Your task to perform on an android device: View the shopping cart on target.com. Image 0: 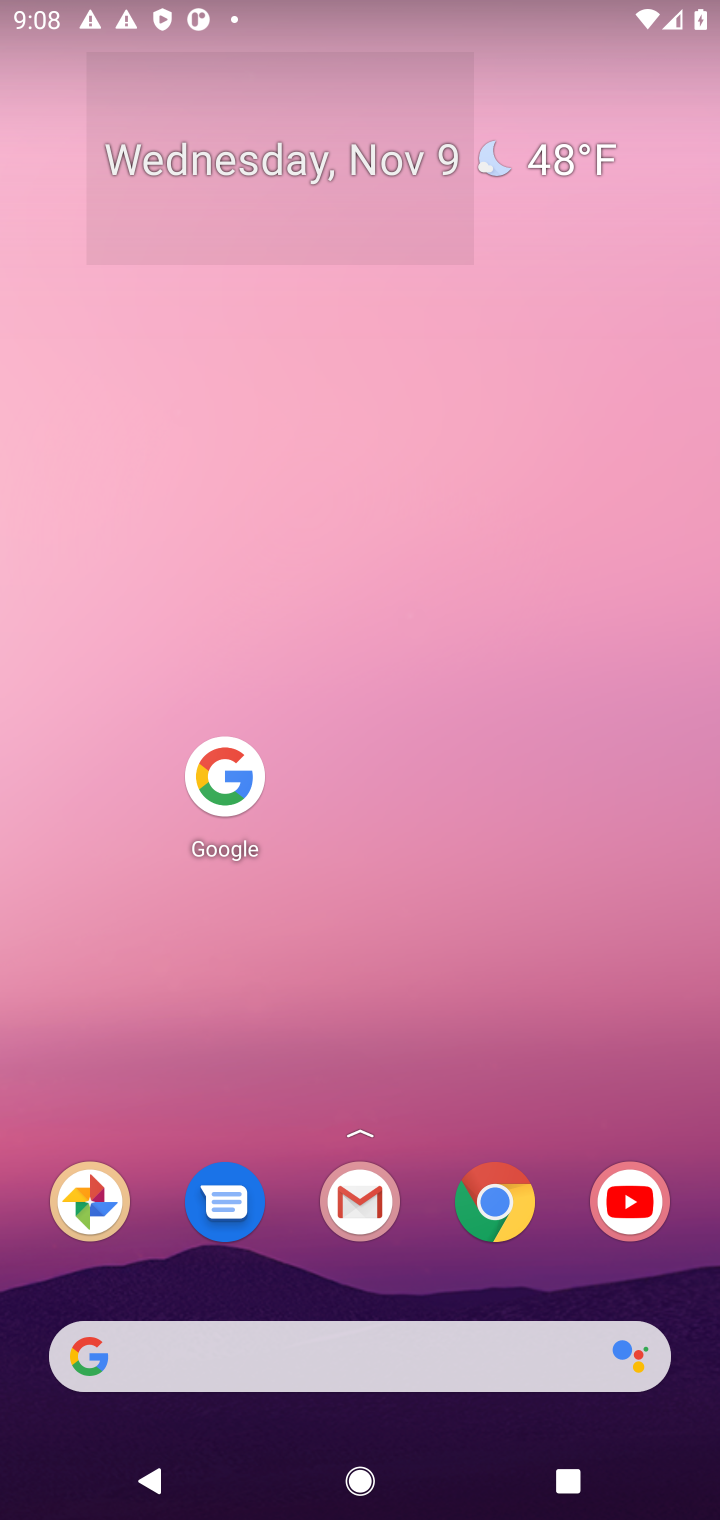
Step 0: press home button
Your task to perform on an android device: View the shopping cart on target.com. Image 1: 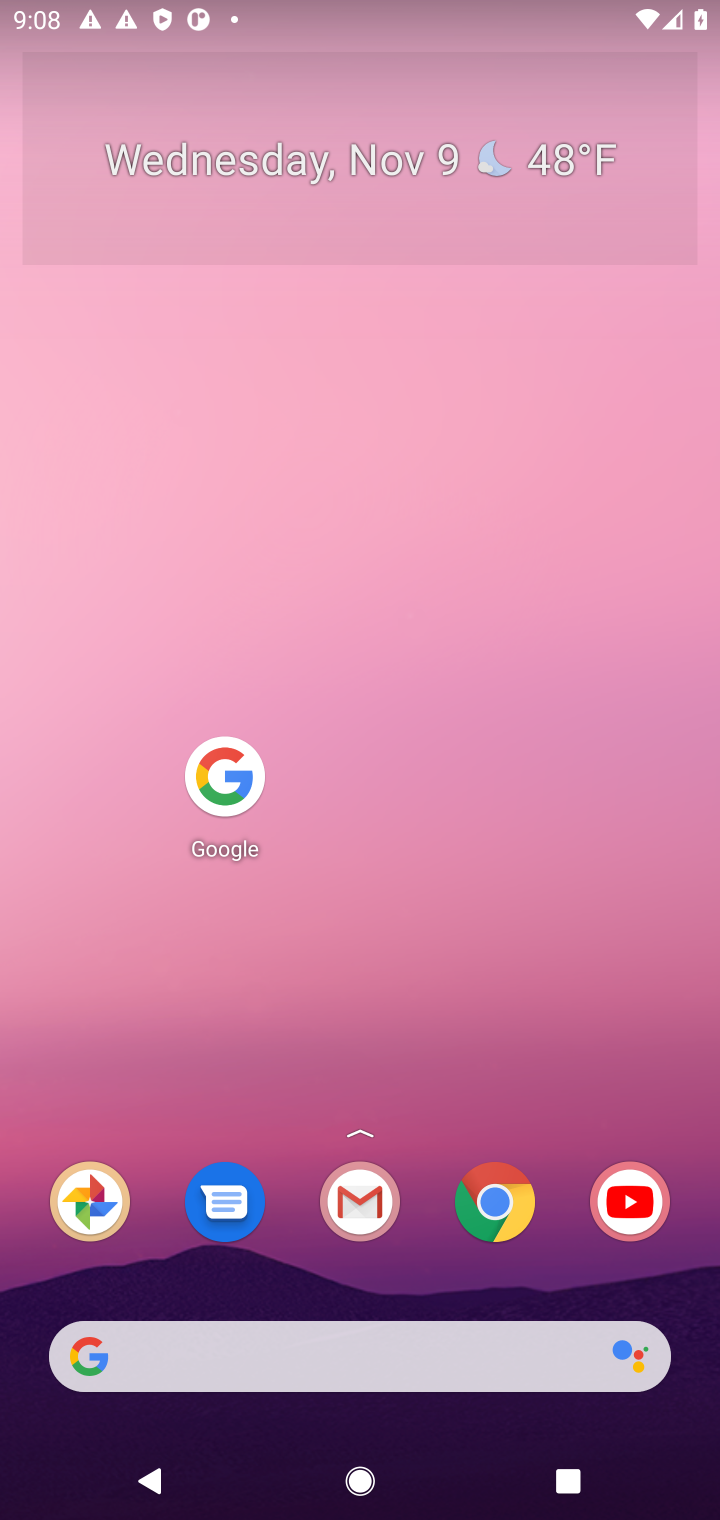
Step 1: click (219, 760)
Your task to perform on an android device: View the shopping cart on target.com. Image 2: 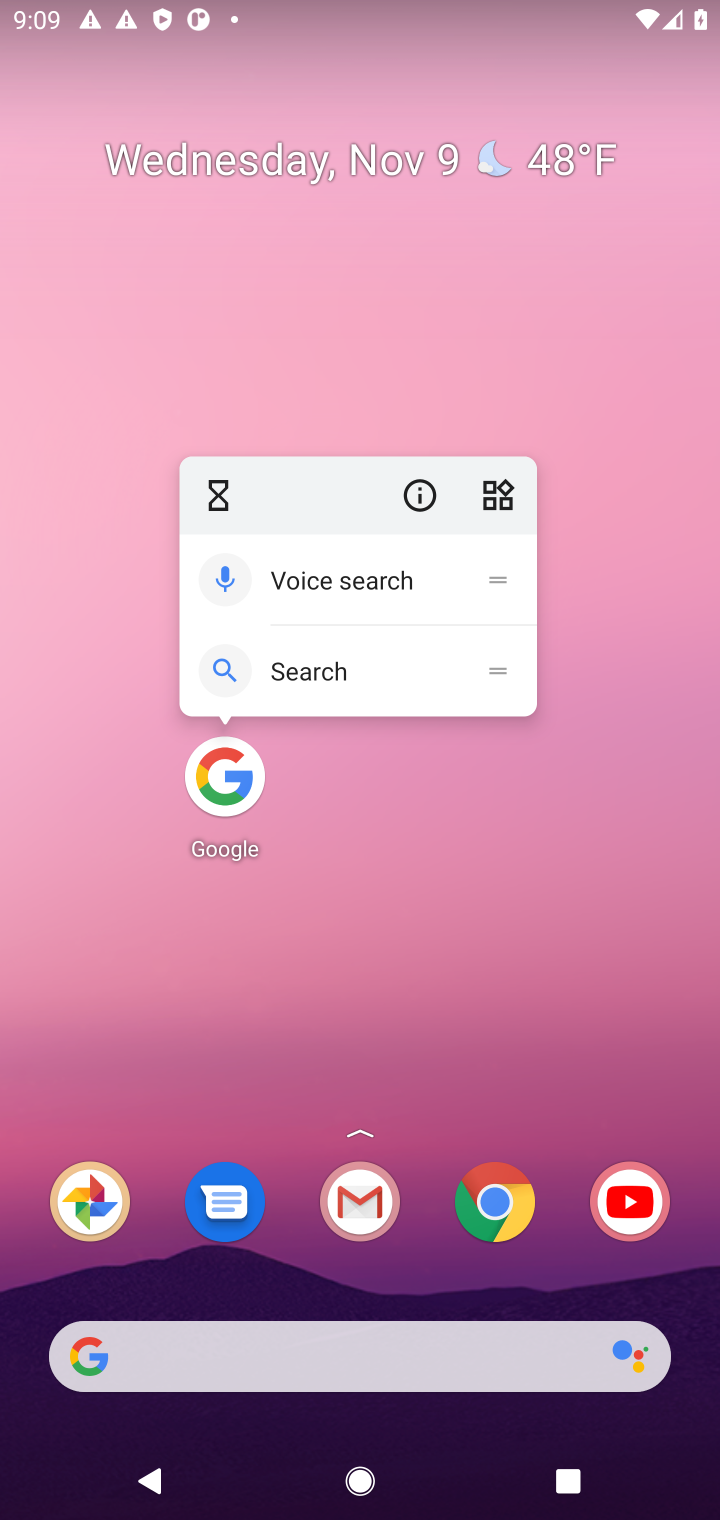
Step 2: click (226, 769)
Your task to perform on an android device: View the shopping cart on target.com. Image 3: 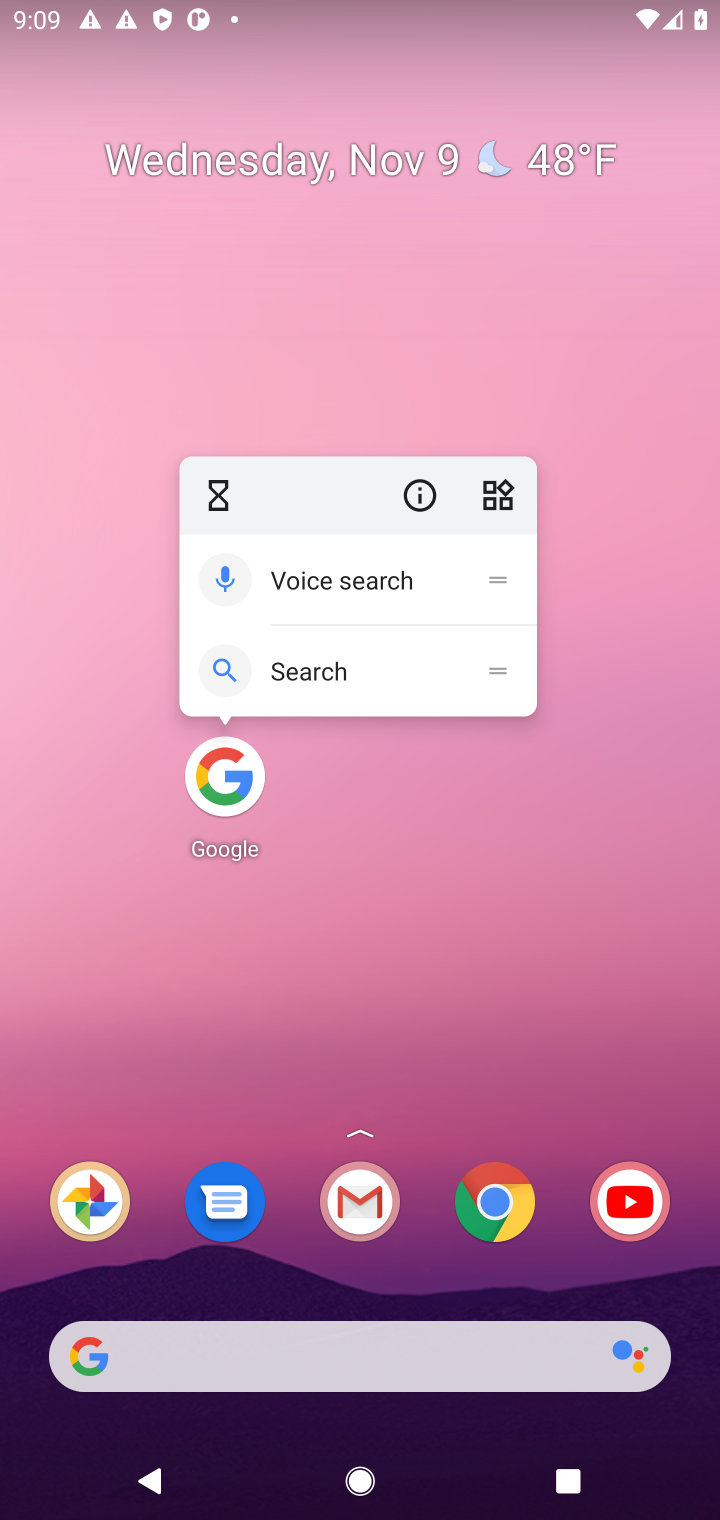
Step 3: click (226, 772)
Your task to perform on an android device: View the shopping cart on target.com. Image 4: 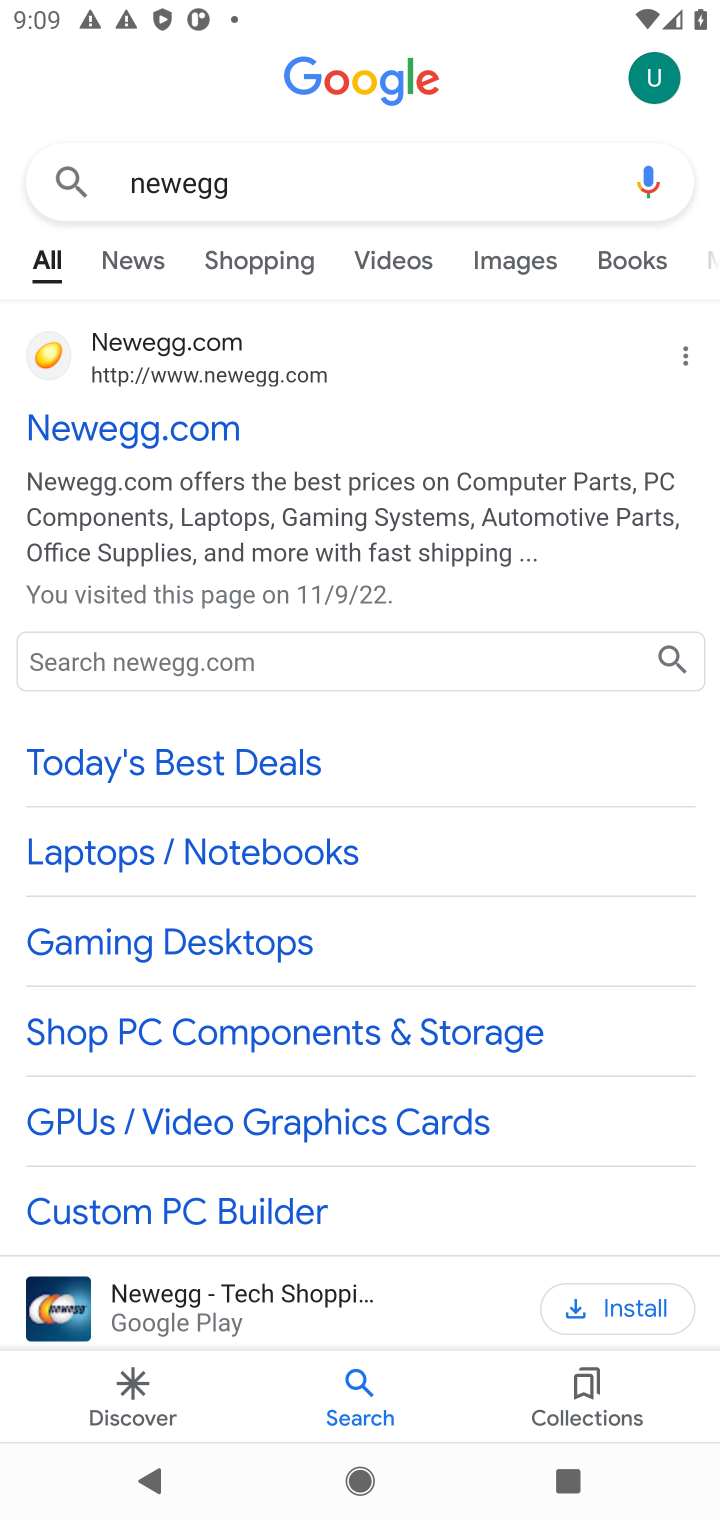
Step 4: click (292, 174)
Your task to perform on an android device: View the shopping cart on target.com. Image 5: 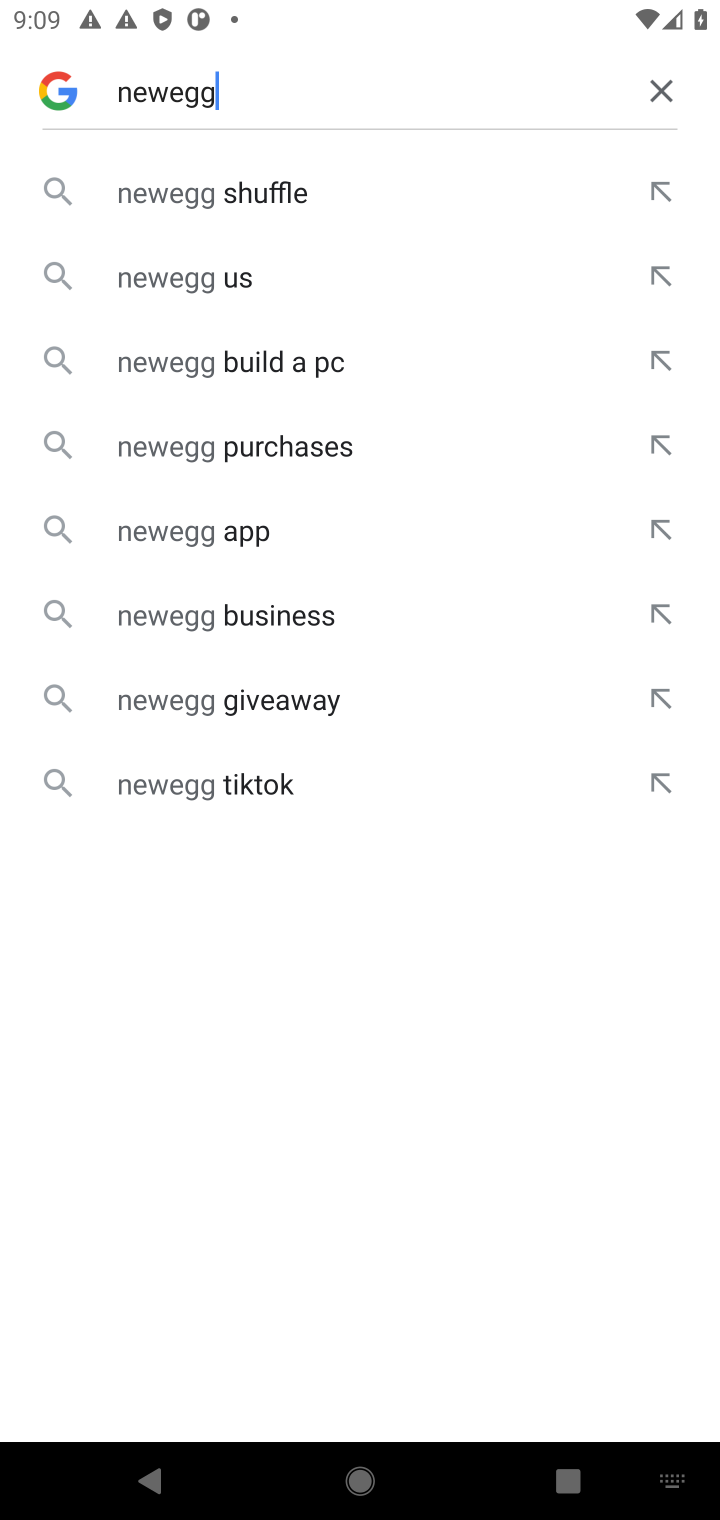
Step 5: click (661, 80)
Your task to perform on an android device: View the shopping cart on target.com. Image 6: 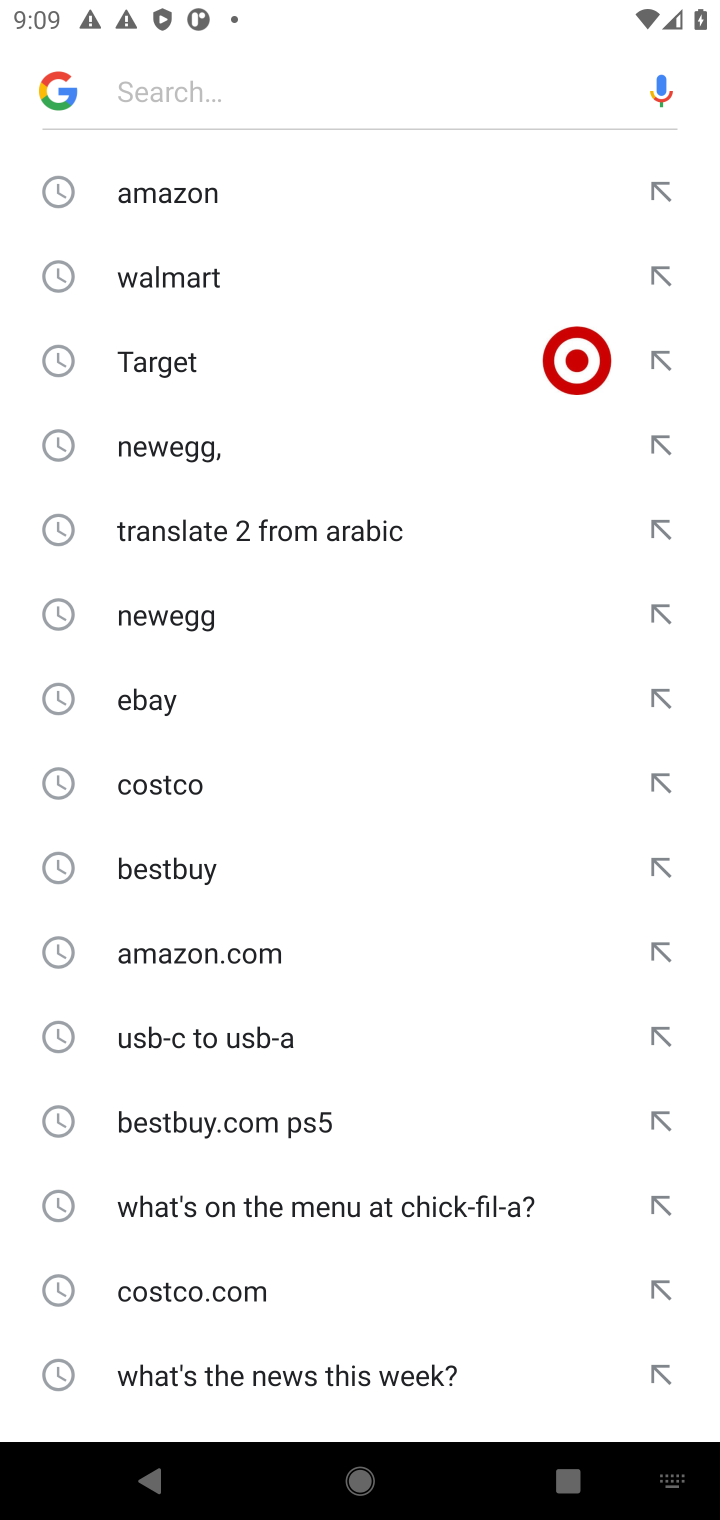
Step 6: click (164, 352)
Your task to perform on an android device: View the shopping cart on target.com. Image 7: 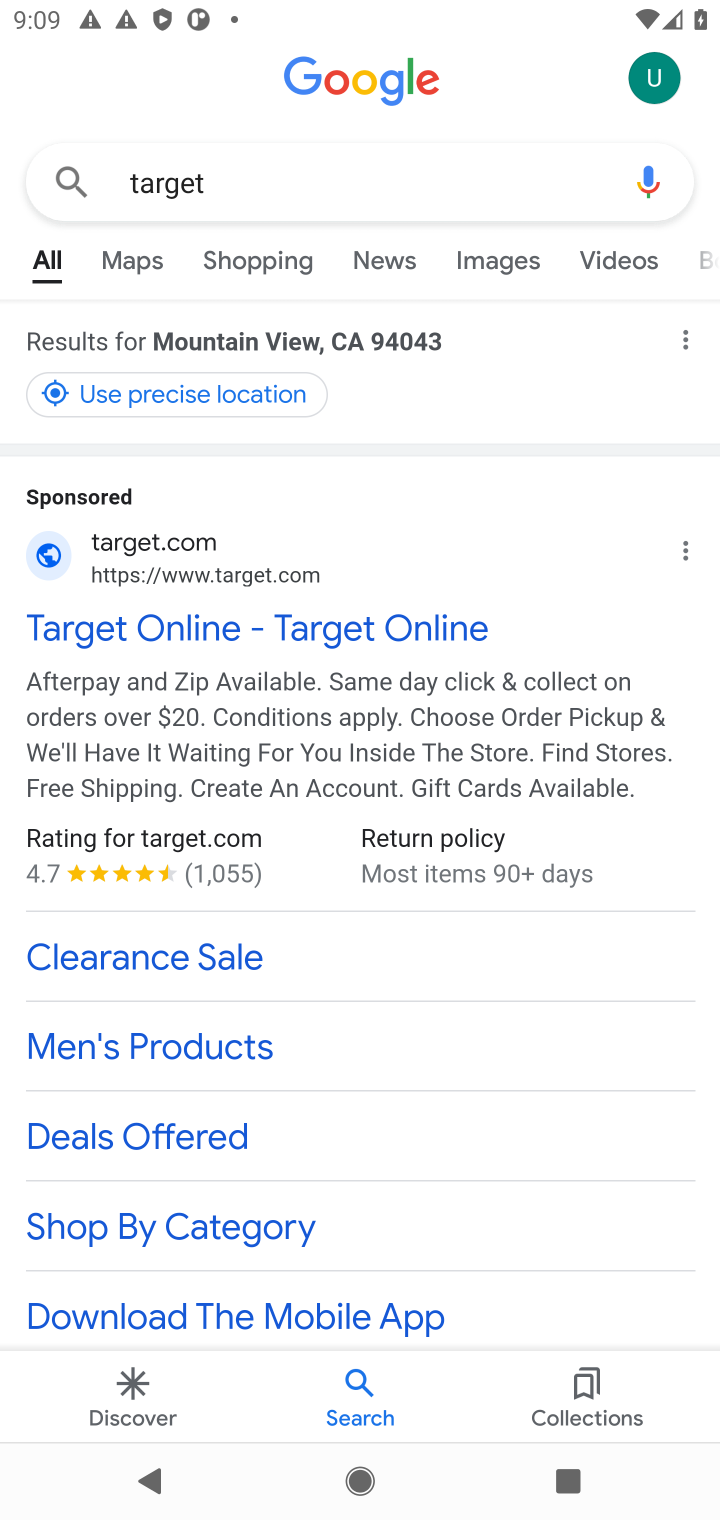
Step 7: click (212, 636)
Your task to perform on an android device: View the shopping cart on target.com. Image 8: 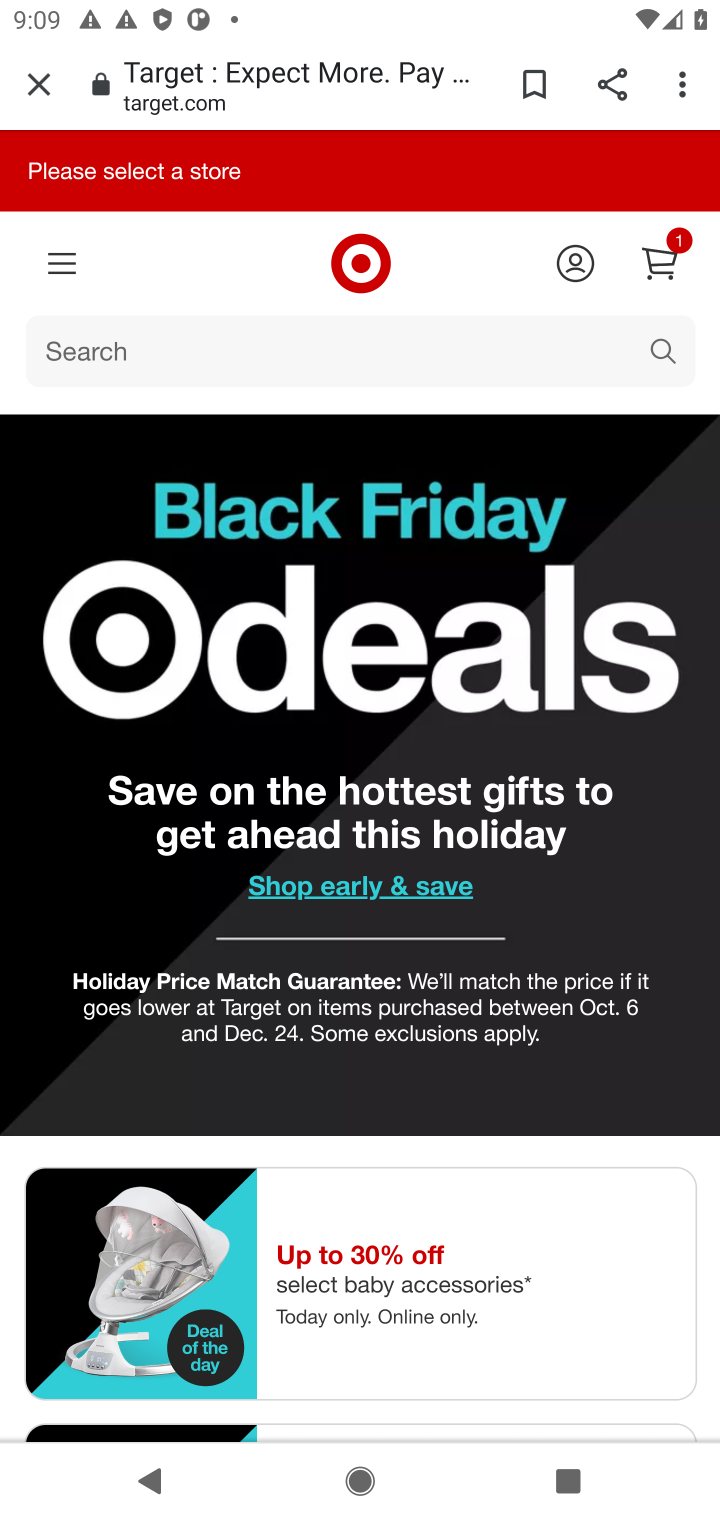
Step 8: click (656, 257)
Your task to perform on an android device: View the shopping cart on target.com. Image 9: 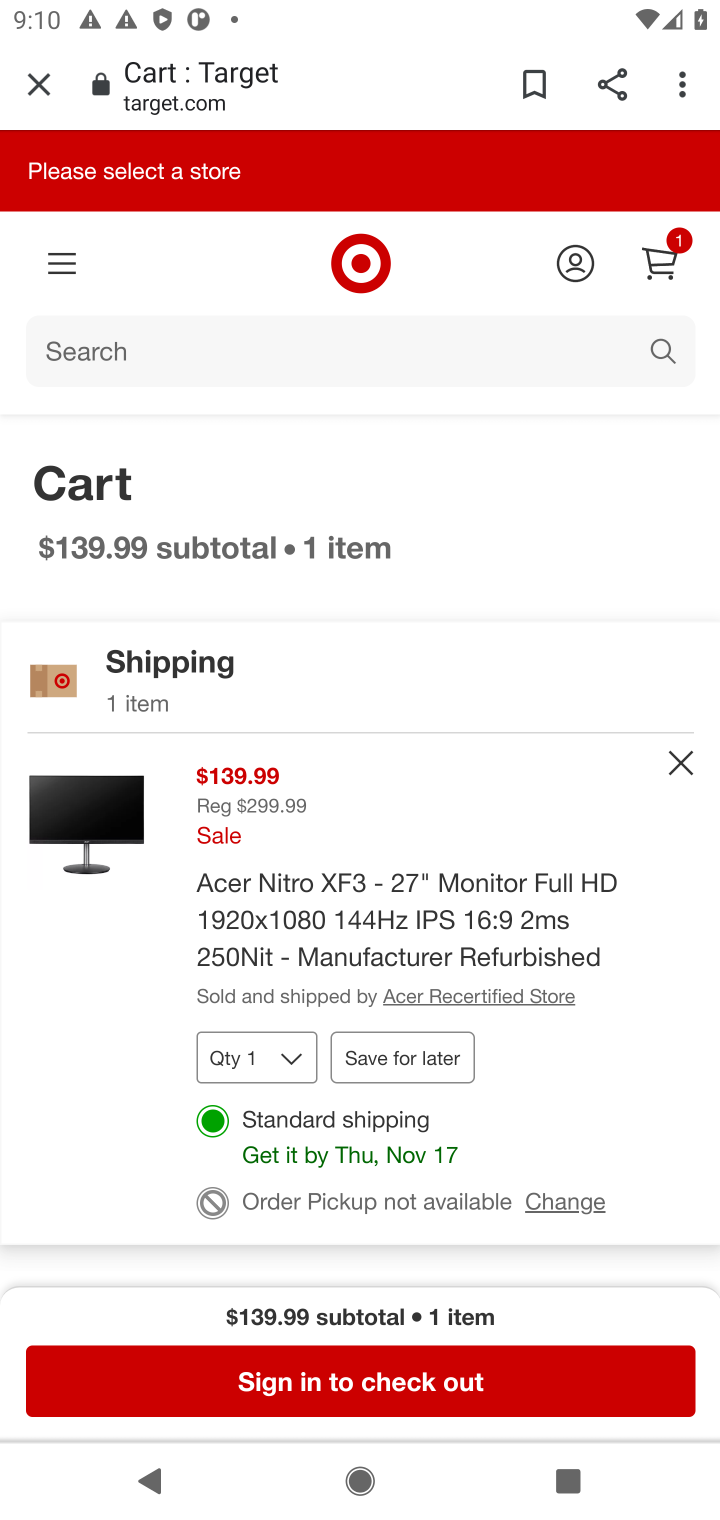
Step 9: task complete